Your task to perform on an android device: stop showing notifications on the lock screen Image 0: 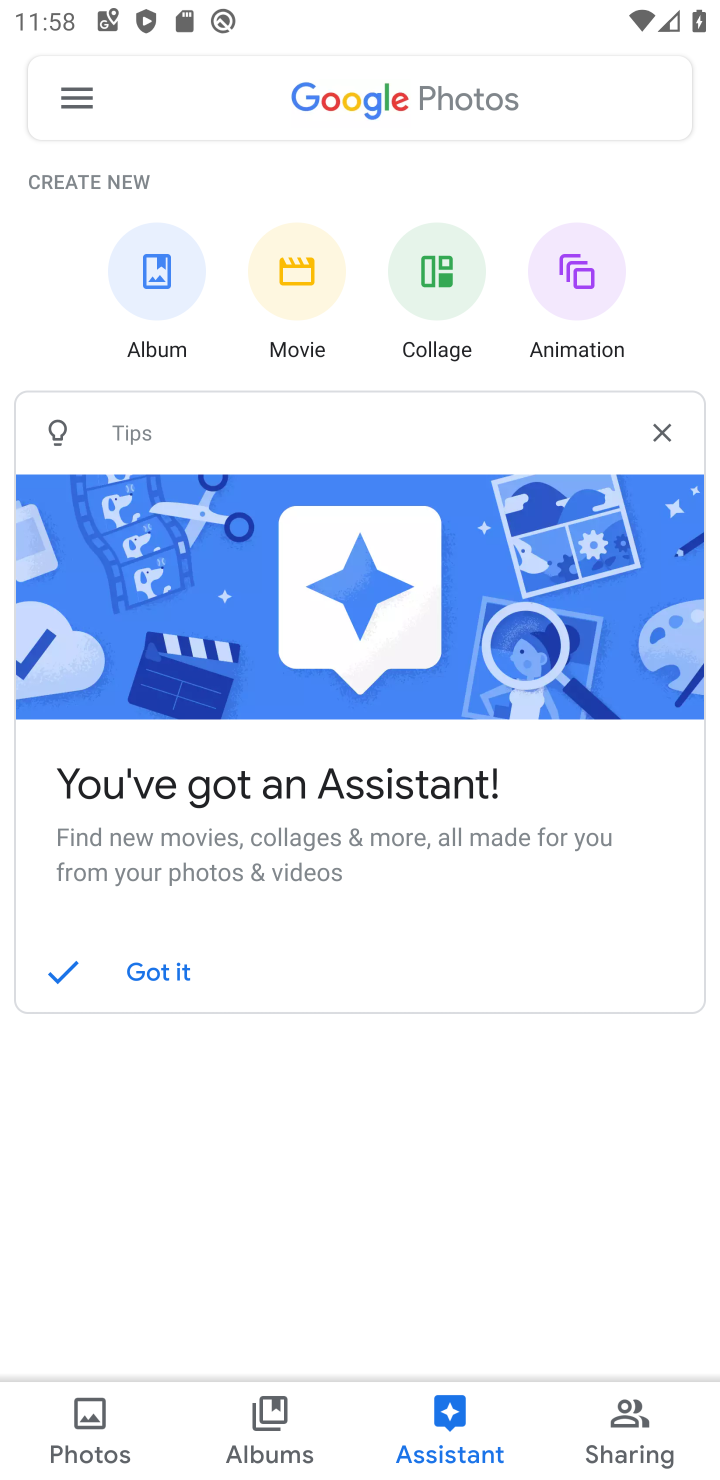
Step 0: press home button
Your task to perform on an android device: stop showing notifications on the lock screen Image 1: 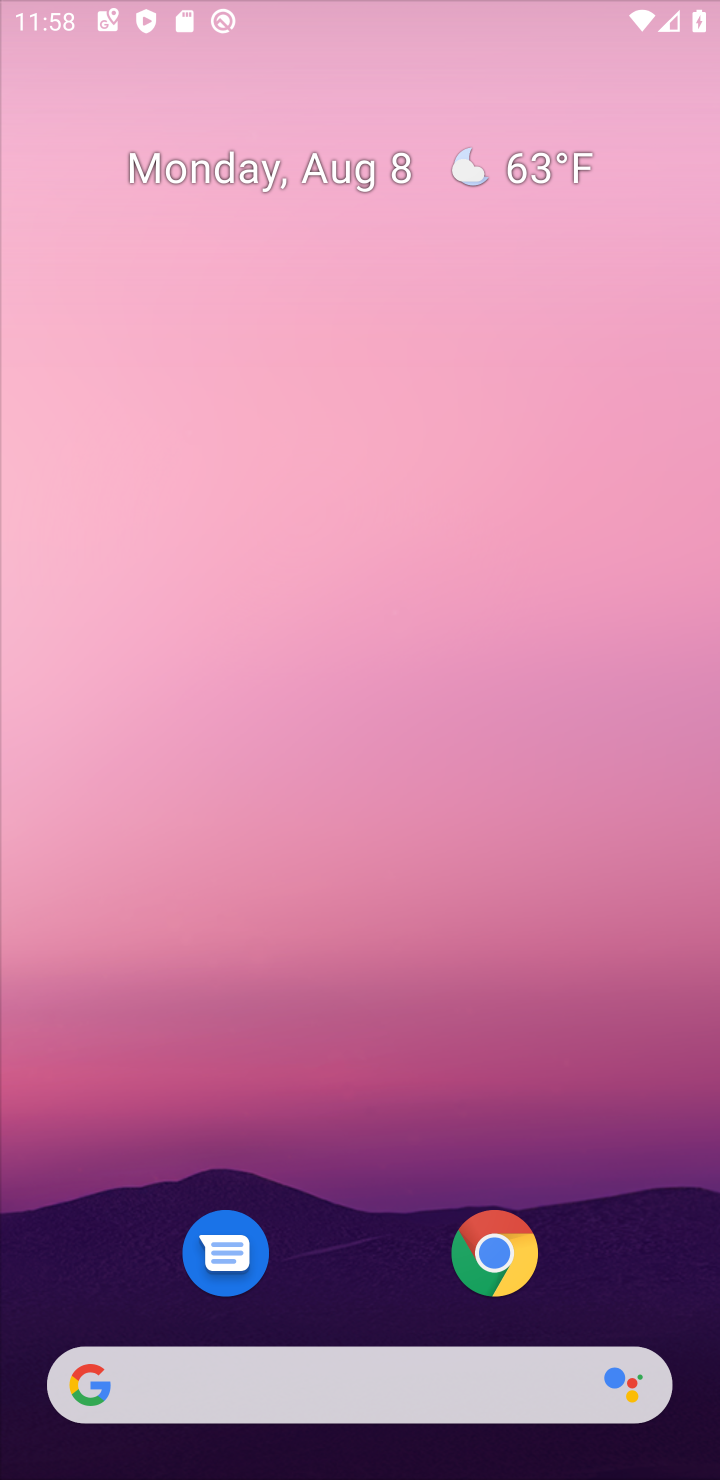
Step 1: drag from (681, 1332) to (296, 15)
Your task to perform on an android device: stop showing notifications on the lock screen Image 2: 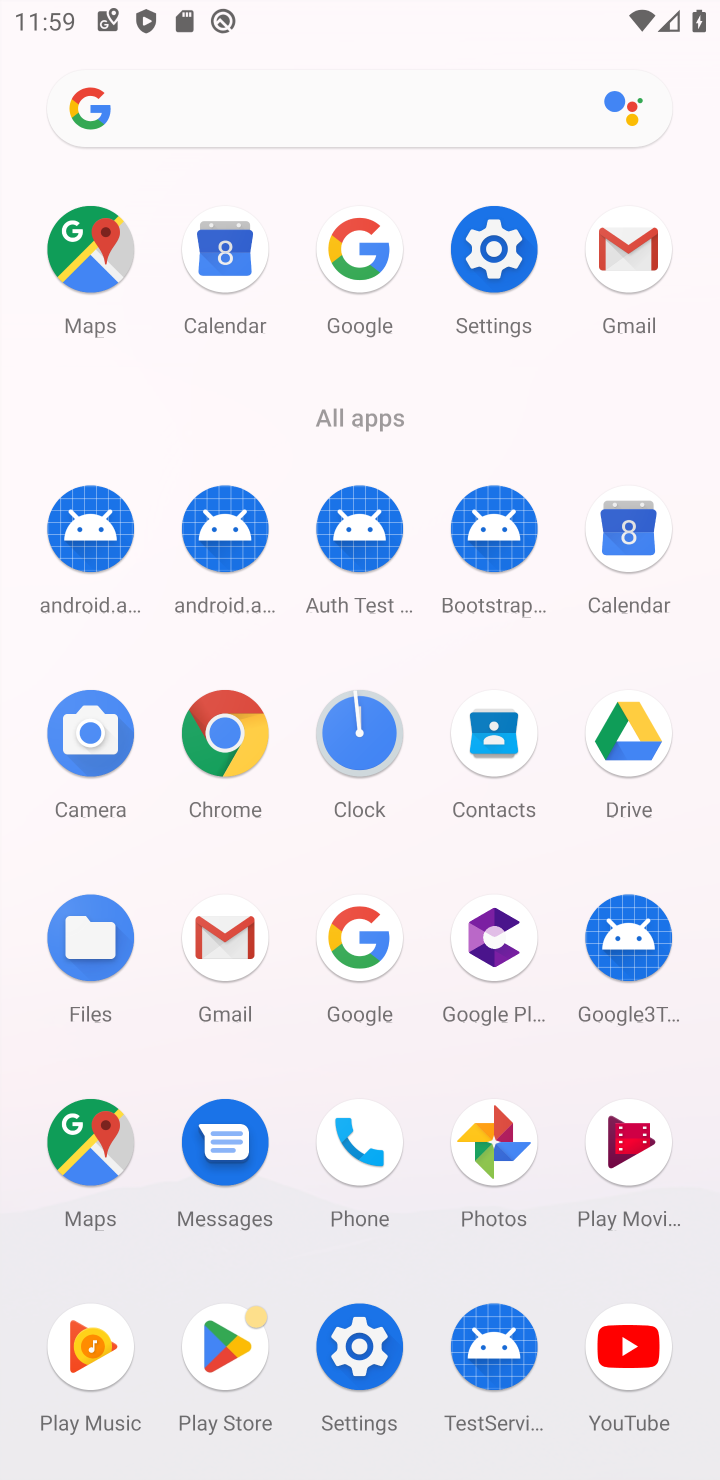
Step 2: click (346, 1345)
Your task to perform on an android device: stop showing notifications on the lock screen Image 3: 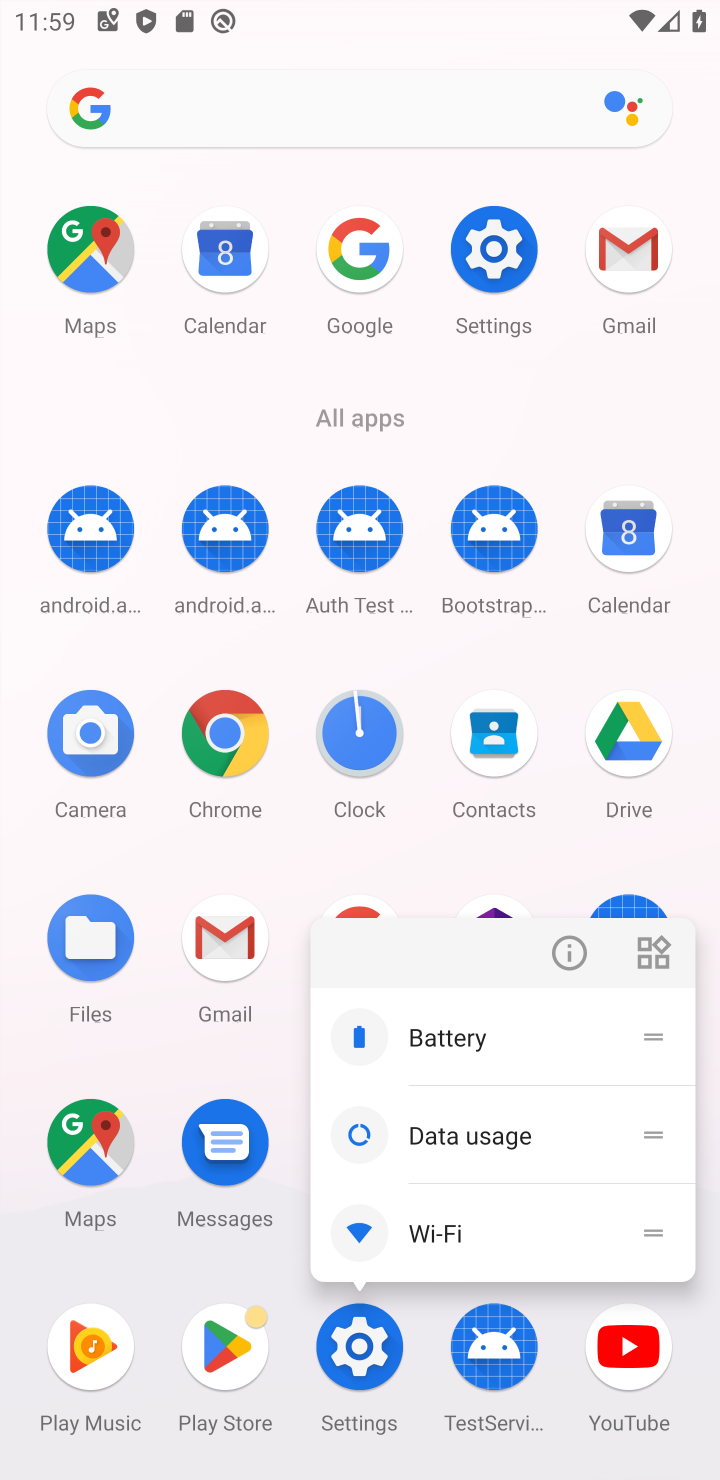
Step 3: click (348, 1347)
Your task to perform on an android device: stop showing notifications on the lock screen Image 4: 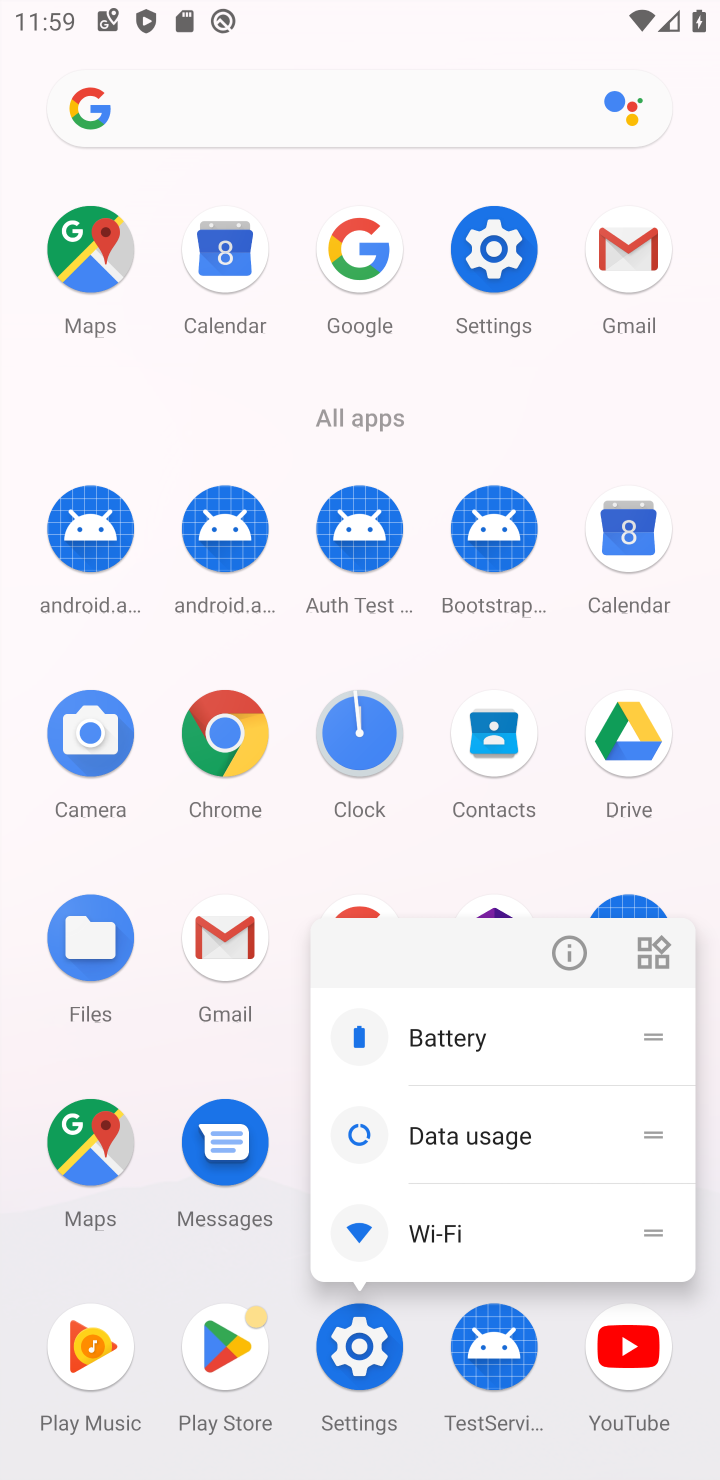
Step 4: click (348, 1347)
Your task to perform on an android device: stop showing notifications on the lock screen Image 5: 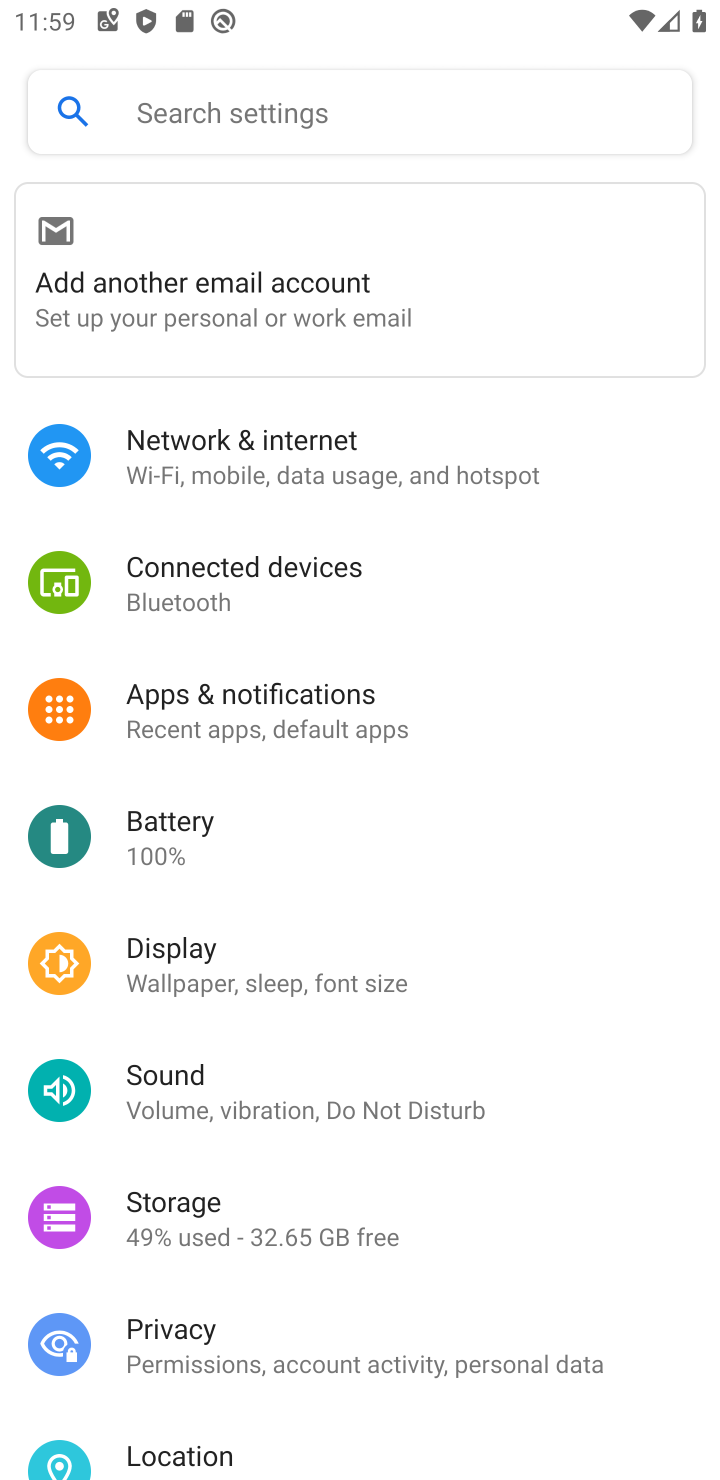
Step 5: click (320, 711)
Your task to perform on an android device: stop showing notifications on the lock screen Image 6: 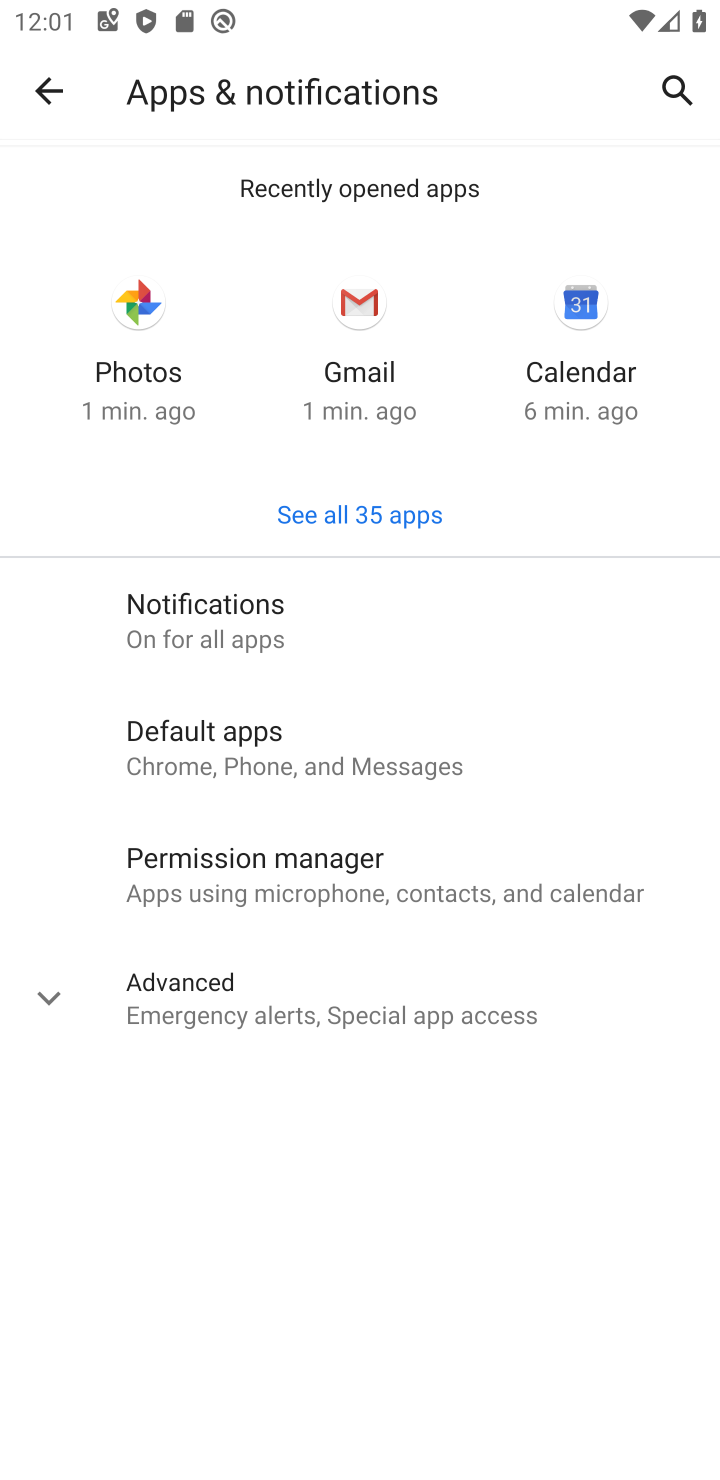
Step 6: click (174, 647)
Your task to perform on an android device: stop showing notifications on the lock screen Image 7: 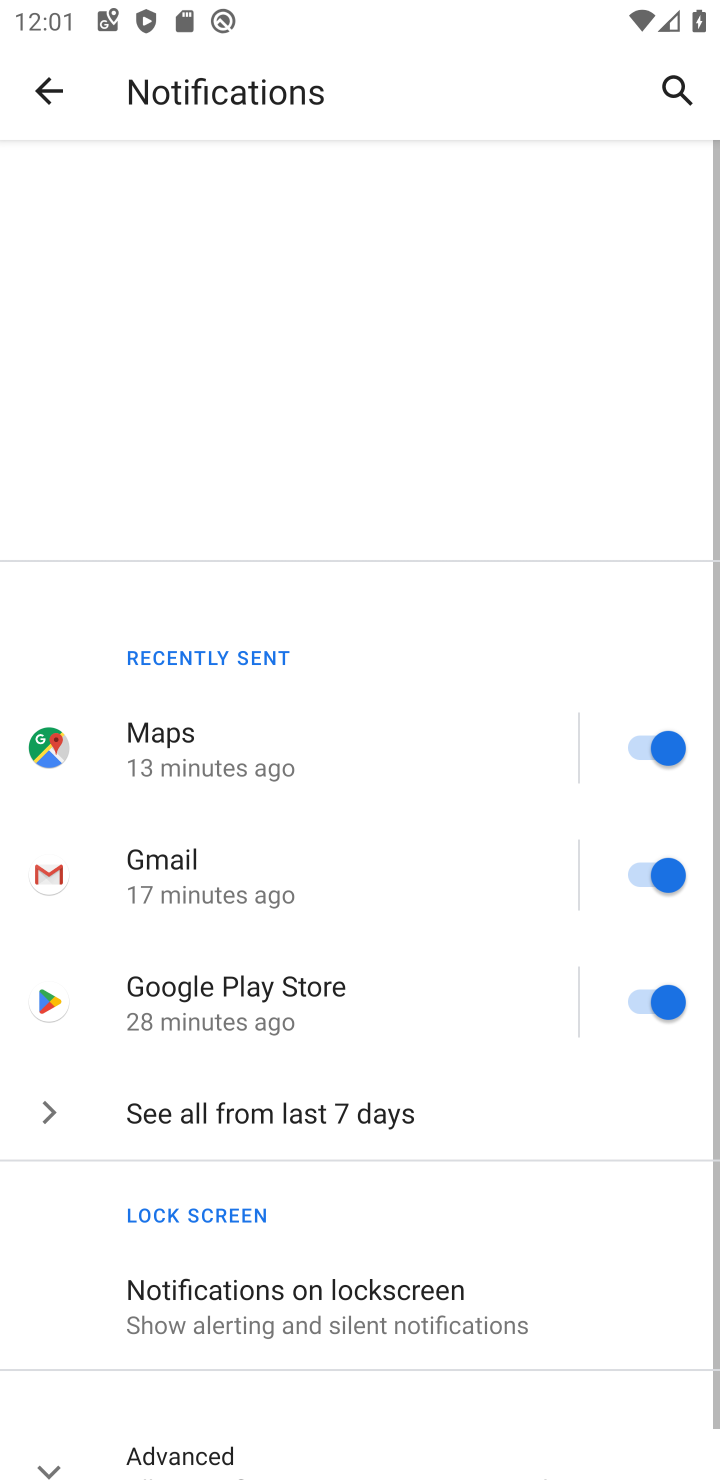
Step 7: click (210, 1302)
Your task to perform on an android device: stop showing notifications on the lock screen Image 8: 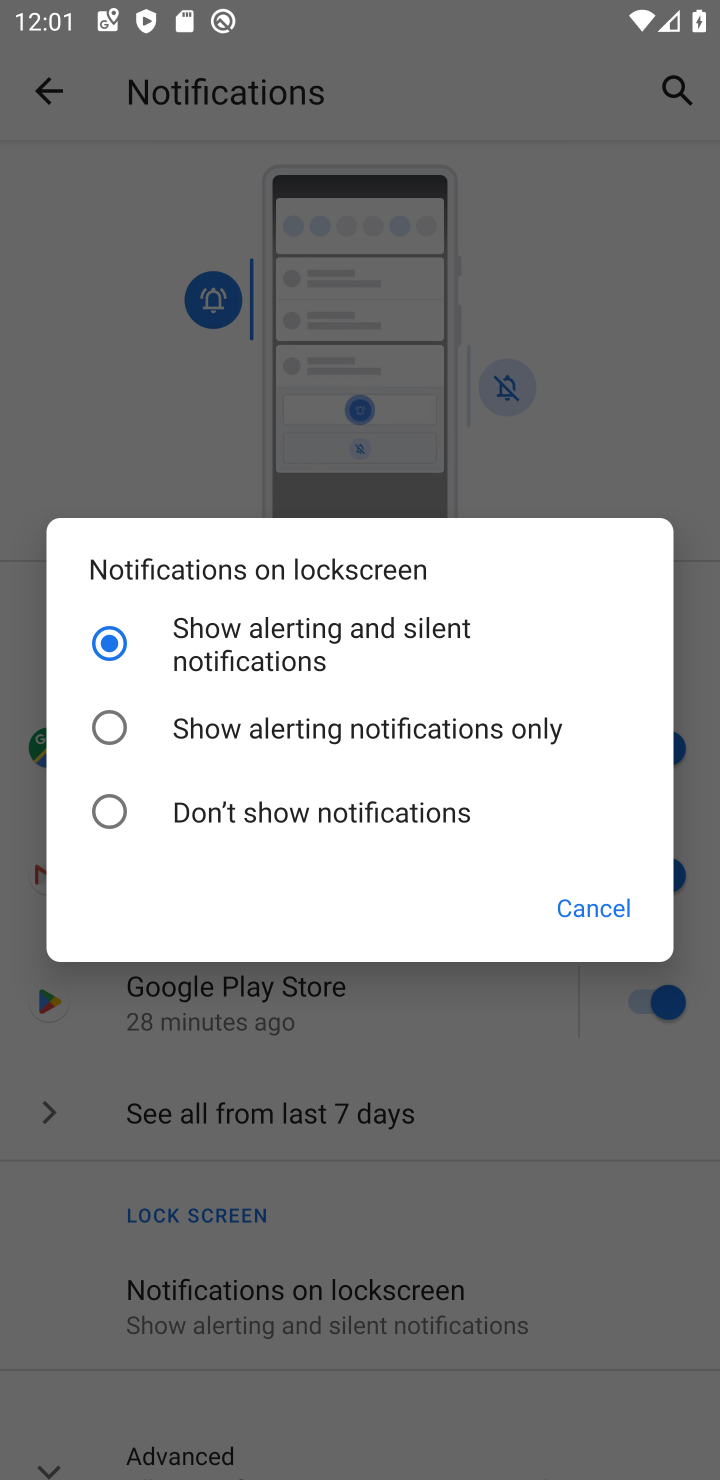
Step 8: click (217, 829)
Your task to perform on an android device: stop showing notifications on the lock screen Image 9: 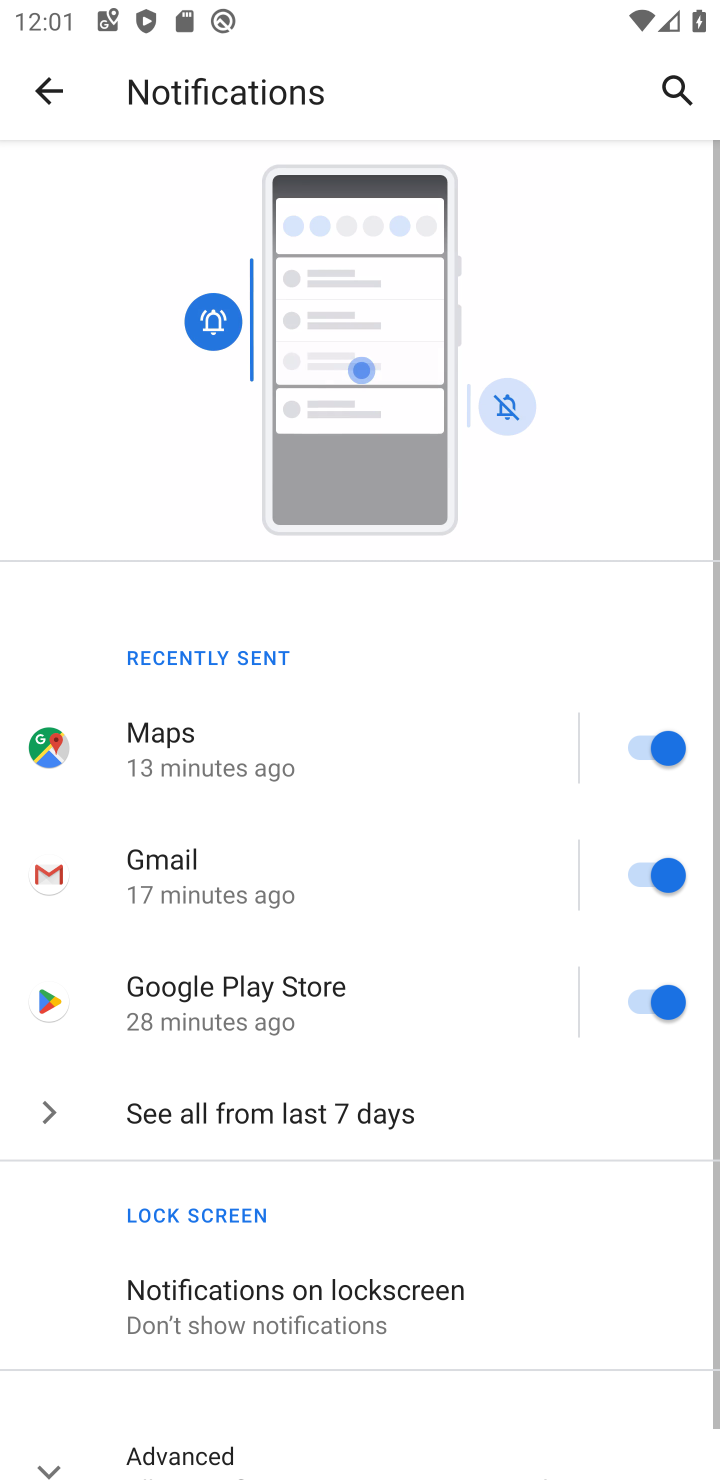
Step 9: task complete